Your task to perform on an android device: Open wifi settings Image 0: 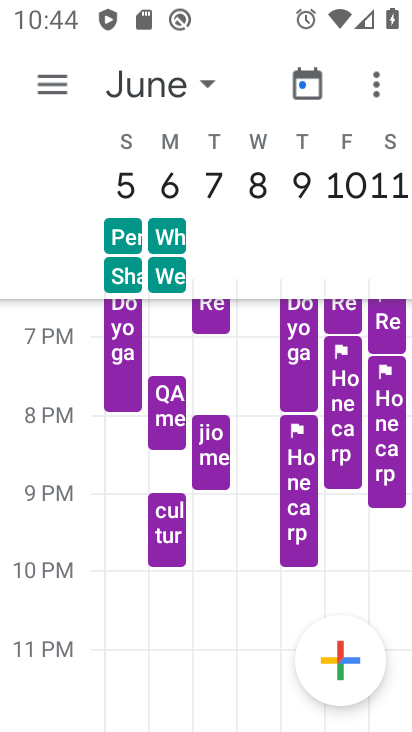
Step 0: press home button
Your task to perform on an android device: Open wifi settings Image 1: 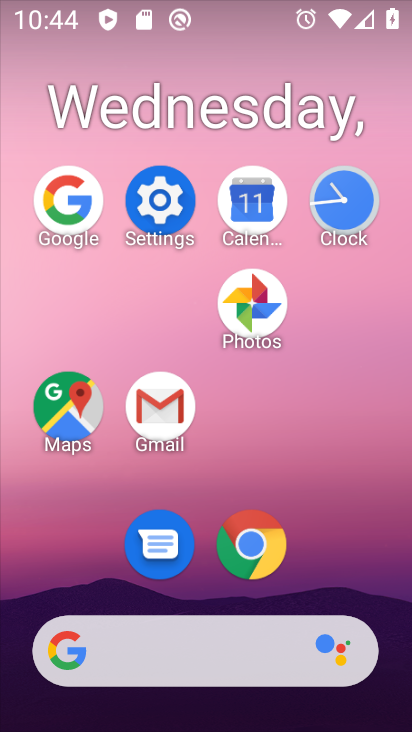
Step 1: click (149, 188)
Your task to perform on an android device: Open wifi settings Image 2: 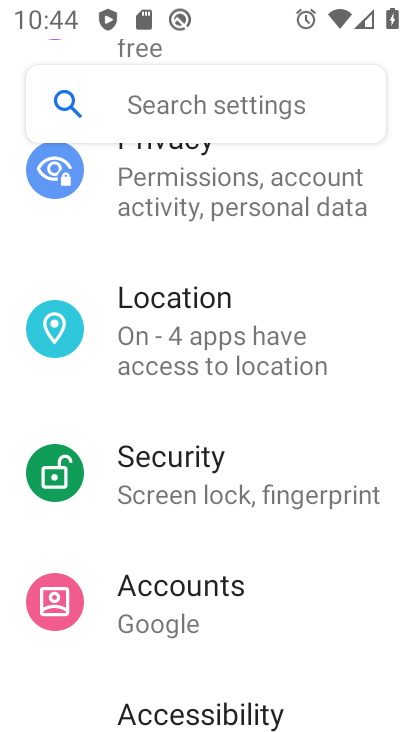
Step 2: drag from (278, 181) to (257, 677)
Your task to perform on an android device: Open wifi settings Image 3: 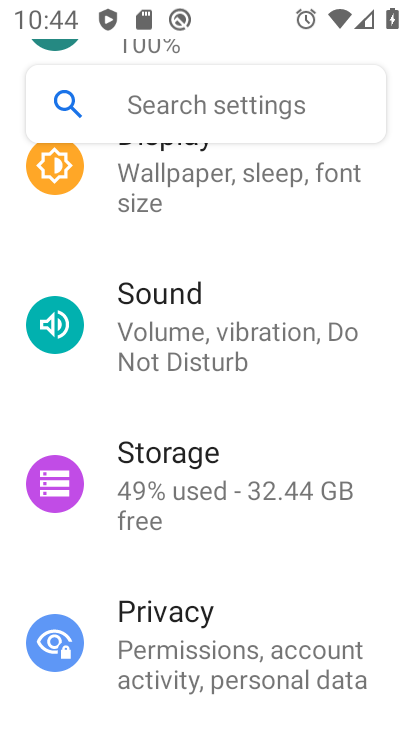
Step 3: drag from (318, 171) to (319, 666)
Your task to perform on an android device: Open wifi settings Image 4: 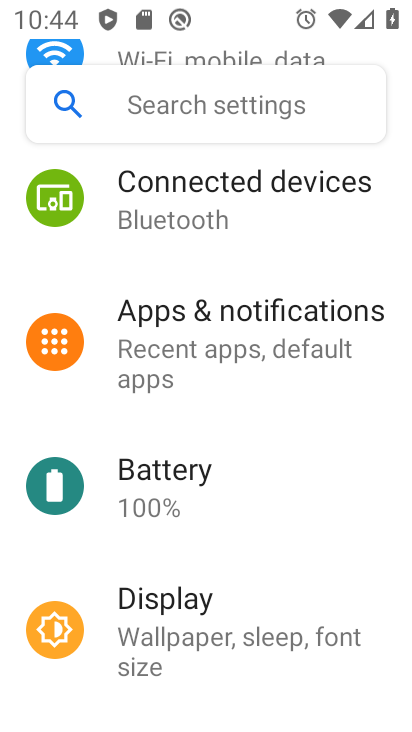
Step 4: drag from (290, 253) to (275, 681)
Your task to perform on an android device: Open wifi settings Image 5: 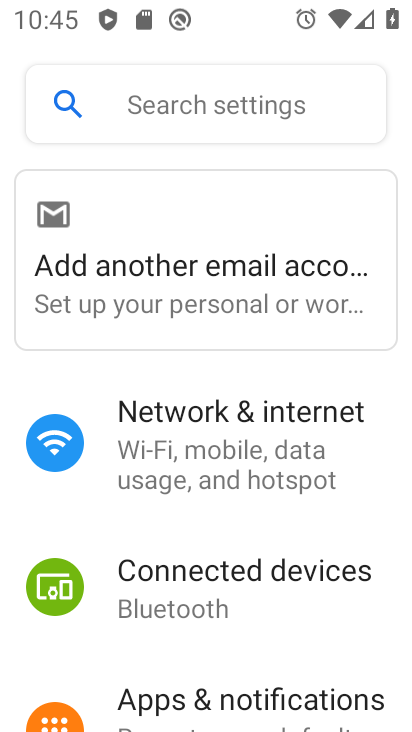
Step 5: click (238, 444)
Your task to perform on an android device: Open wifi settings Image 6: 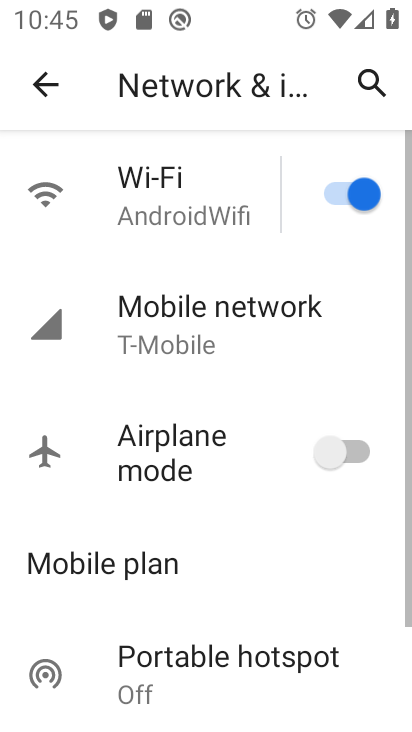
Step 6: click (209, 182)
Your task to perform on an android device: Open wifi settings Image 7: 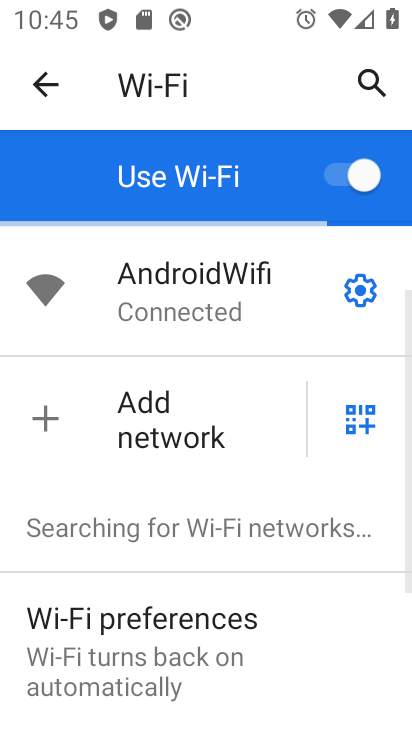
Step 7: click (349, 296)
Your task to perform on an android device: Open wifi settings Image 8: 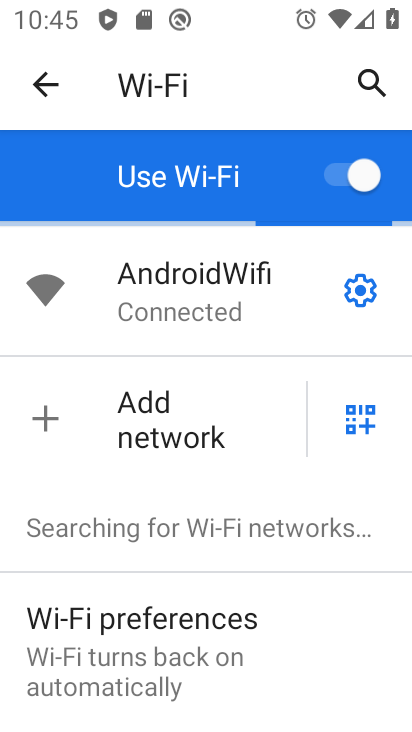
Step 8: click (364, 291)
Your task to perform on an android device: Open wifi settings Image 9: 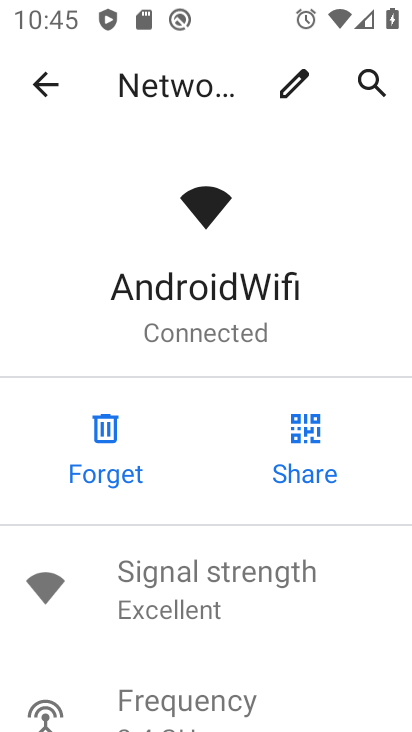
Step 9: task complete